Your task to perform on an android device: Go to Google Image 0: 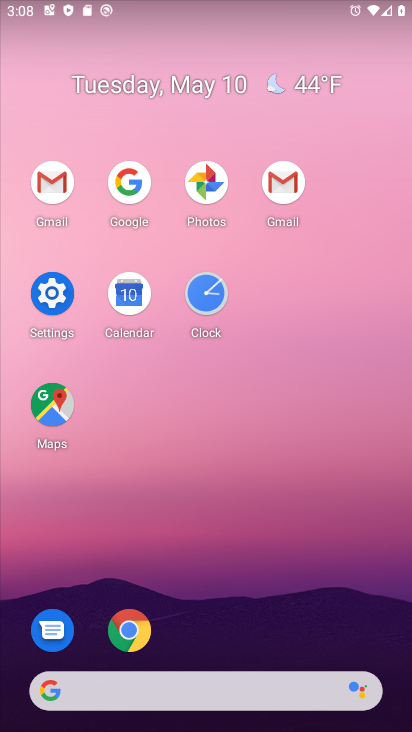
Step 0: click (136, 180)
Your task to perform on an android device: Go to Google Image 1: 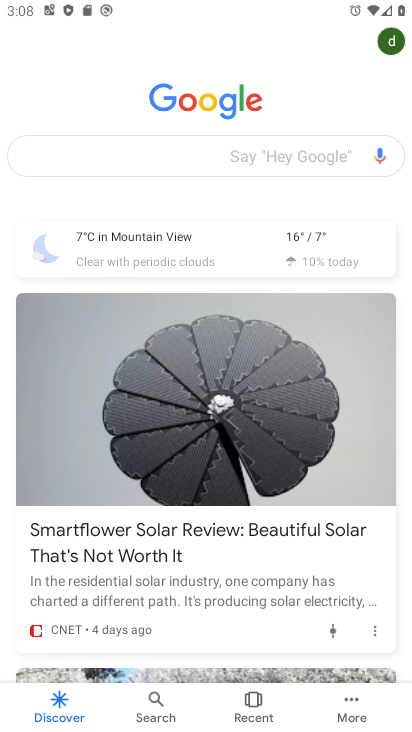
Step 1: task complete